Your task to perform on an android device: Turn off the flashlight Image 0: 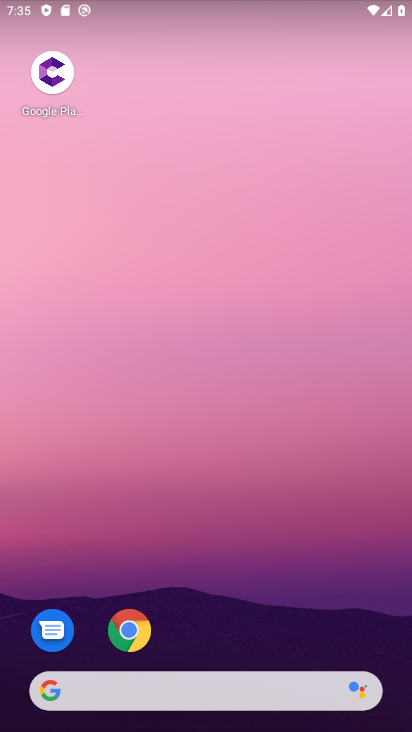
Step 0: drag from (219, 634) to (290, 0)
Your task to perform on an android device: Turn off the flashlight Image 1: 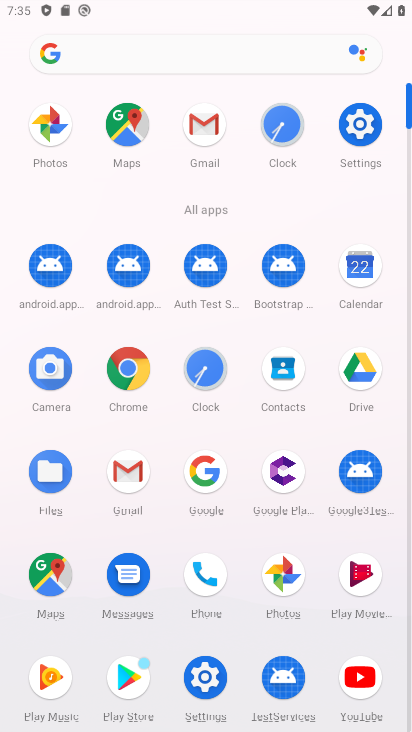
Step 1: click (353, 150)
Your task to perform on an android device: Turn off the flashlight Image 2: 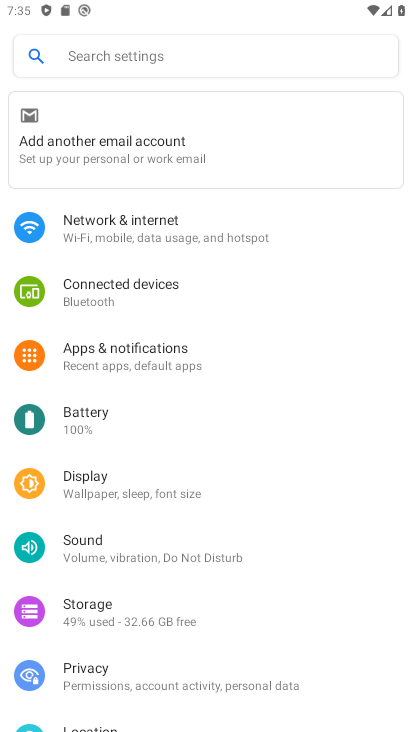
Step 2: click (189, 238)
Your task to perform on an android device: Turn off the flashlight Image 3: 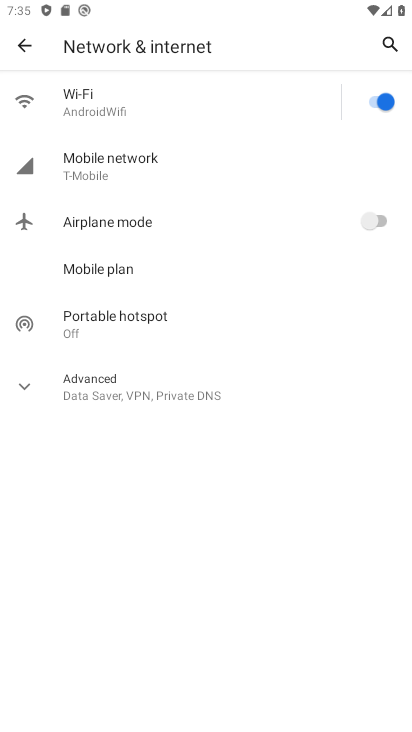
Step 3: task complete